Your task to perform on an android device: toggle location history Image 0: 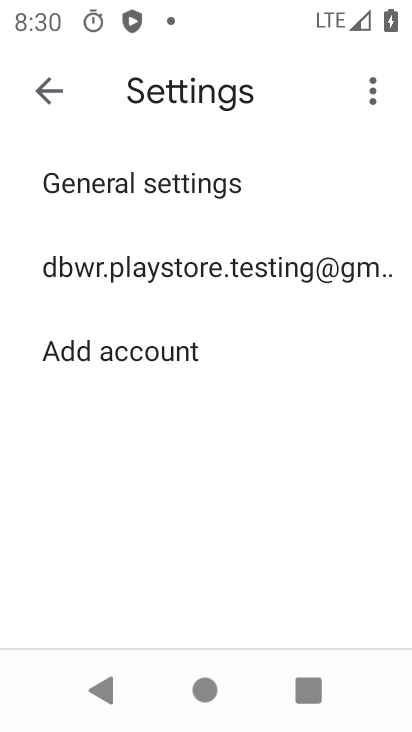
Step 0: drag from (239, 521) to (352, 161)
Your task to perform on an android device: toggle location history Image 1: 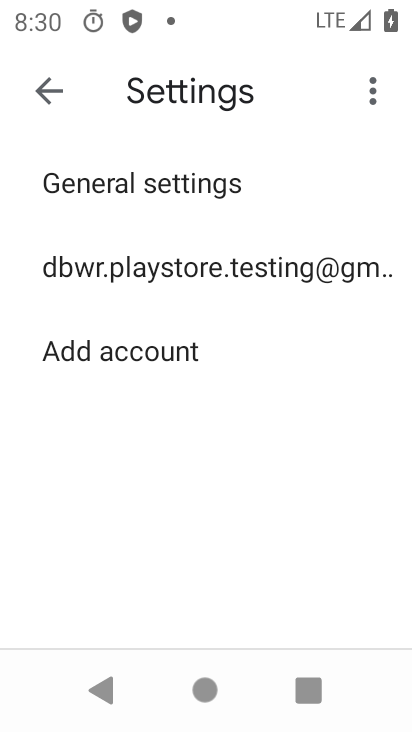
Step 1: press home button
Your task to perform on an android device: toggle location history Image 2: 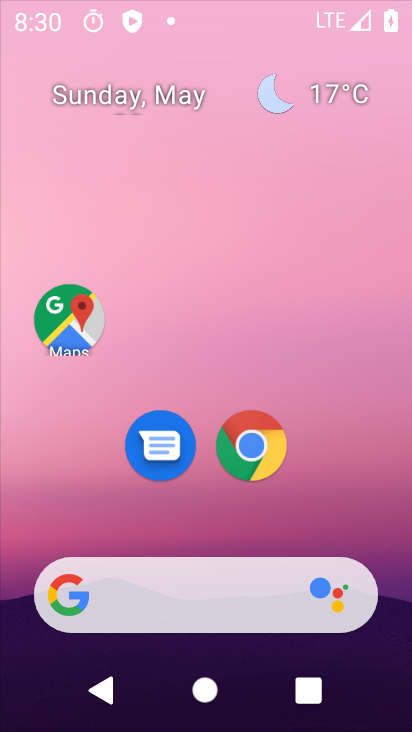
Step 2: drag from (197, 541) to (294, 8)
Your task to perform on an android device: toggle location history Image 3: 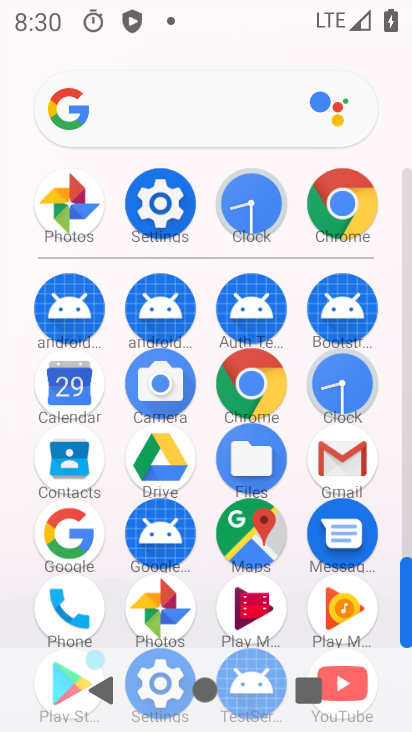
Step 3: click (140, 217)
Your task to perform on an android device: toggle location history Image 4: 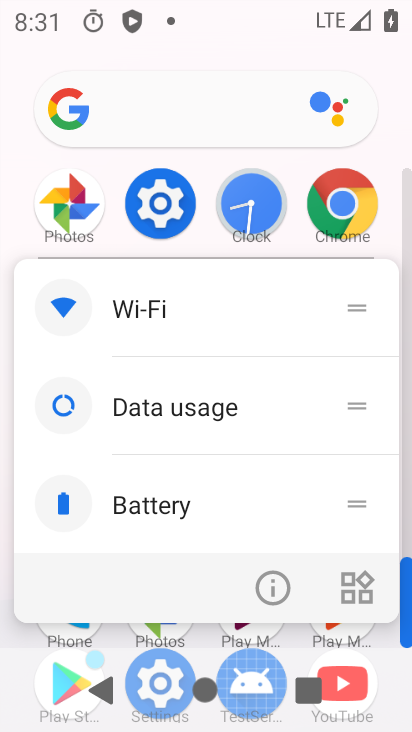
Step 4: click (264, 577)
Your task to perform on an android device: toggle location history Image 5: 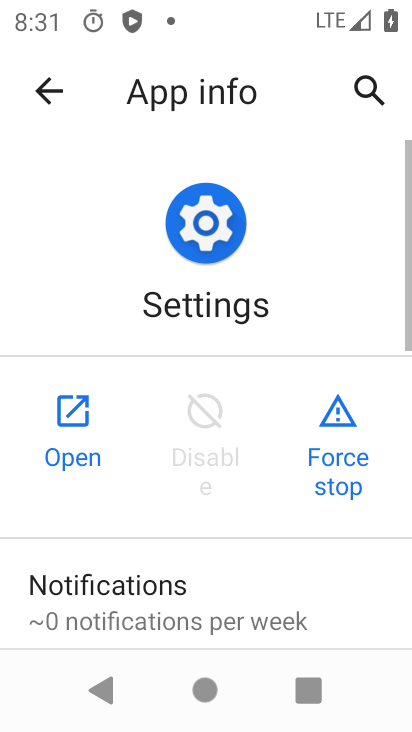
Step 5: click (76, 406)
Your task to perform on an android device: toggle location history Image 6: 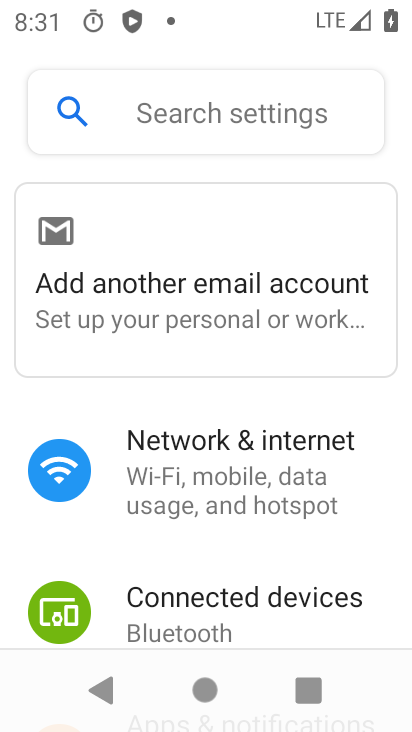
Step 6: drag from (224, 595) to (315, 6)
Your task to perform on an android device: toggle location history Image 7: 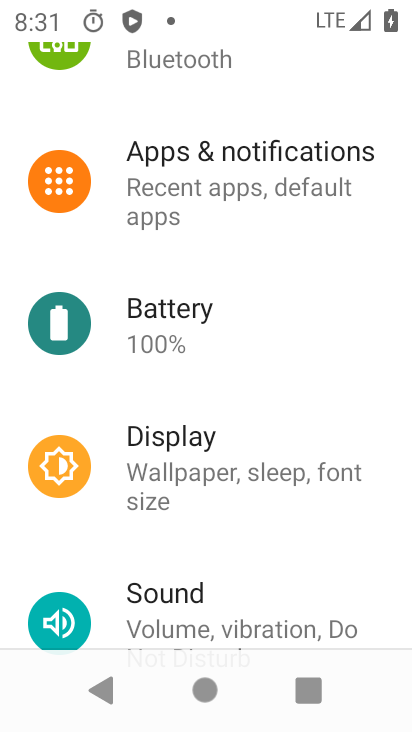
Step 7: drag from (217, 533) to (312, 1)
Your task to perform on an android device: toggle location history Image 8: 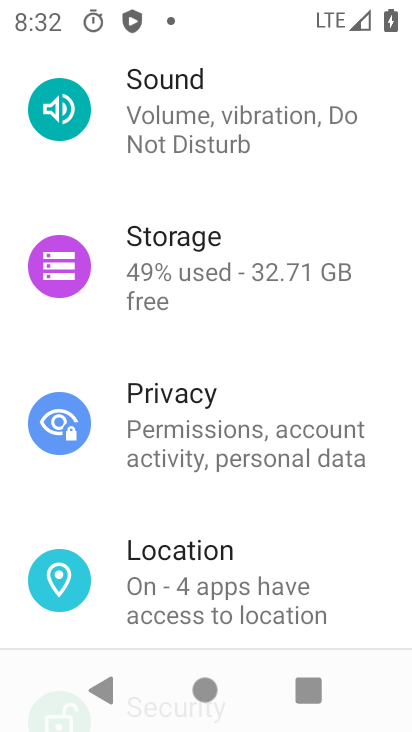
Step 8: click (165, 555)
Your task to perform on an android device: toggle location history Image 9: 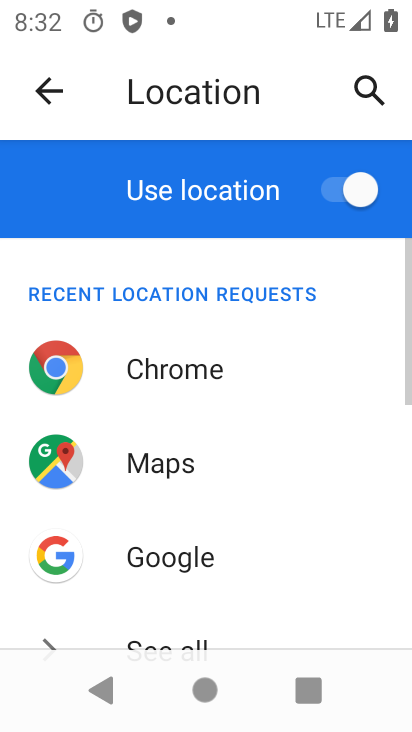
Step 9: drag from (193, 495) to (266, 11)
Your task to perform on an android device: toggle location history Image 10: 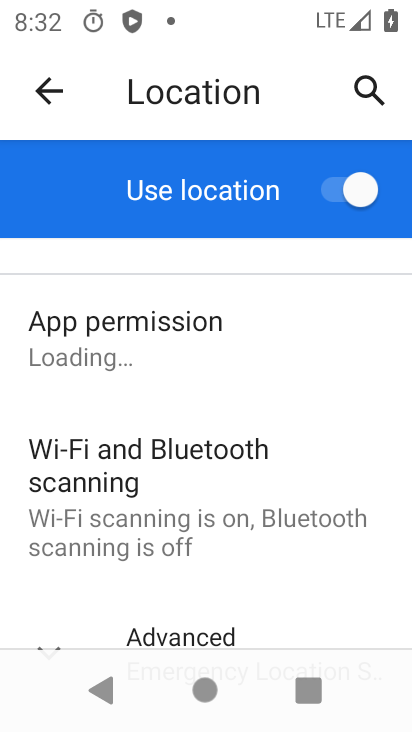
Step 10: drag from (243, 444) to (266, 254)
Your task to perform on an android device: toggle location history Image 11: 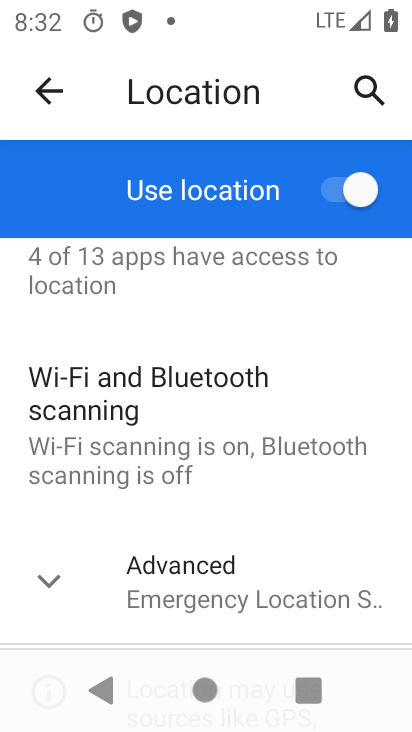
Step 11: drag from (217, 378) to (293, 717)
Your task to perform on an android device: toggle location history Image 12: 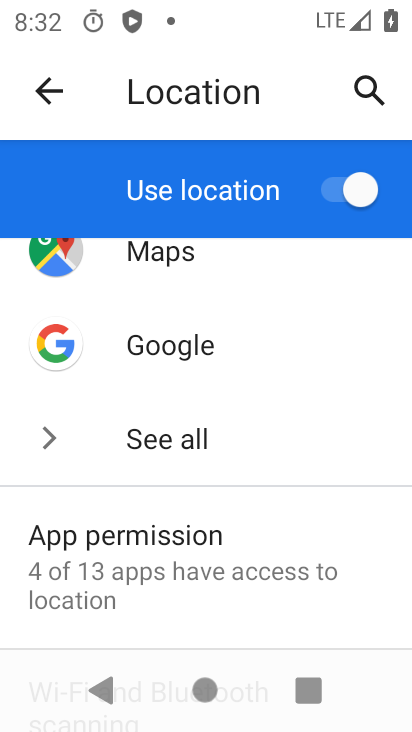
Step 12: drag from (248, 361) to (325, 730)
Your task to perform on an android device: toggle location history Image 13: 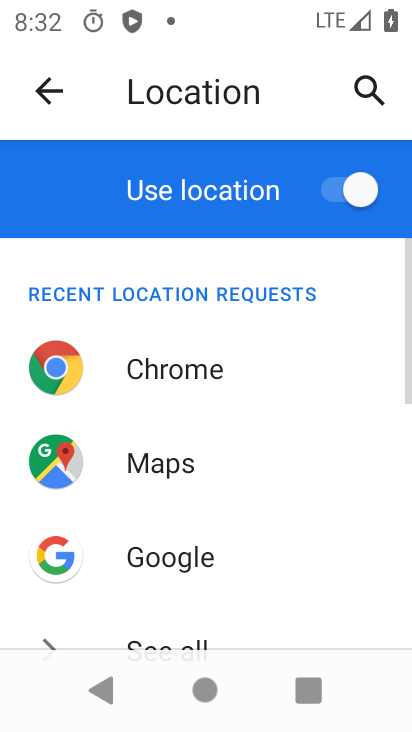
Step 13: drag from (240, 547) to (318, 202)
Your task to perform on an android device: toggle location history Image 14: 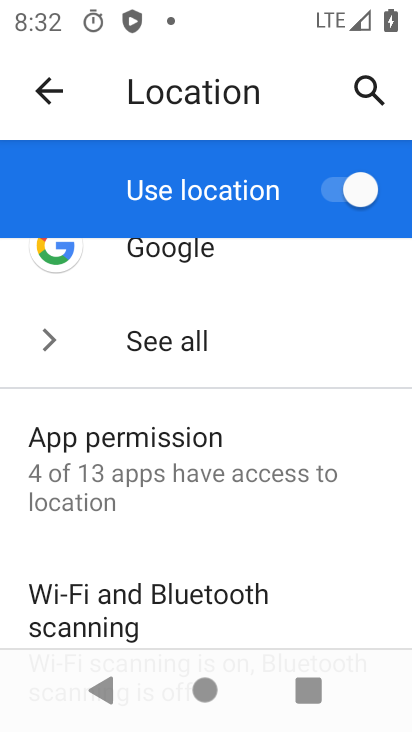
Step 14: drag from (210, 582) to (342, 184)
Your task to perform on an android device: toggle location history Image 15: 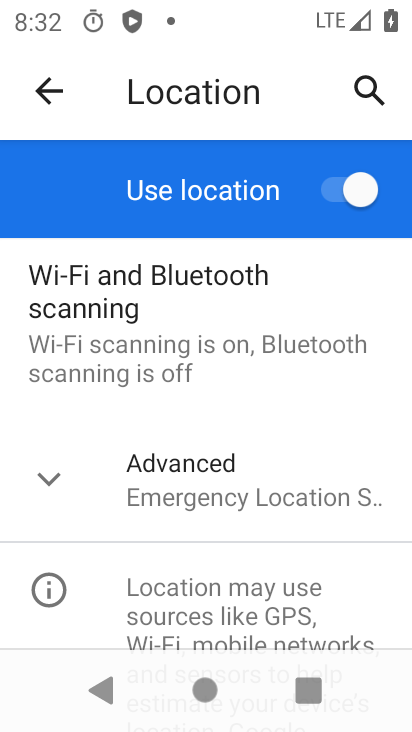
Step 15: click (152, 480)
Your task to perform on an android device: toggle location history Image 16: 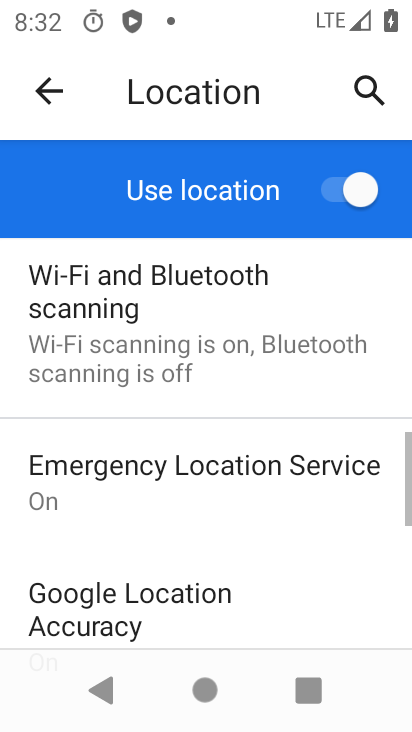
Step 16: drag from (185, 455) to (409, 123)
Your task to perform on an android device: toggle location history Image 17: 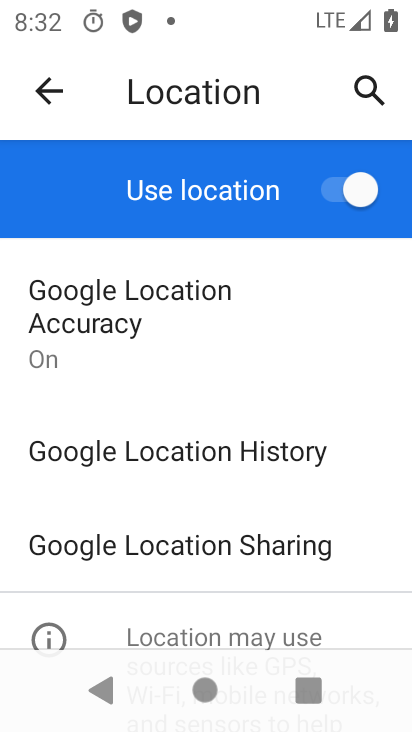
Step 17: click (112, 465)
Your task to perform on an android device: toggle location history Image 18: 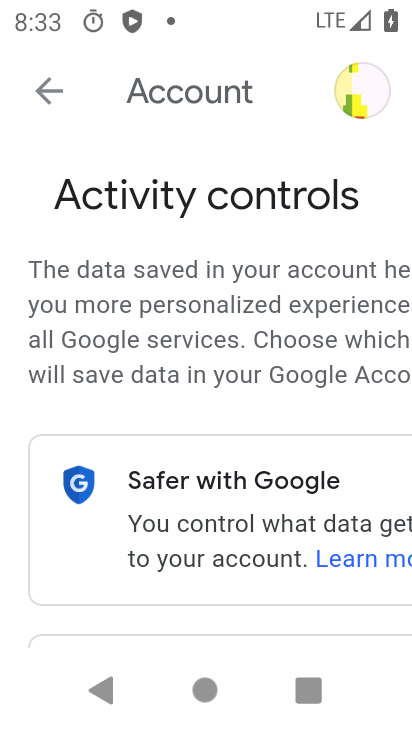
Step 18: drag from (177, 569) to (365, 70)
Your task to perform on an android device: toggle location history Image 19: 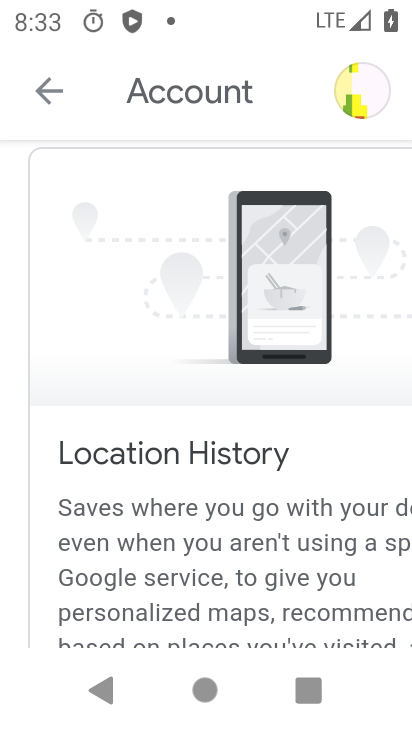
Step 19: drag from (259, 585) to (298, 60)
Your task to perform on an android device: toggle location history Image 20: 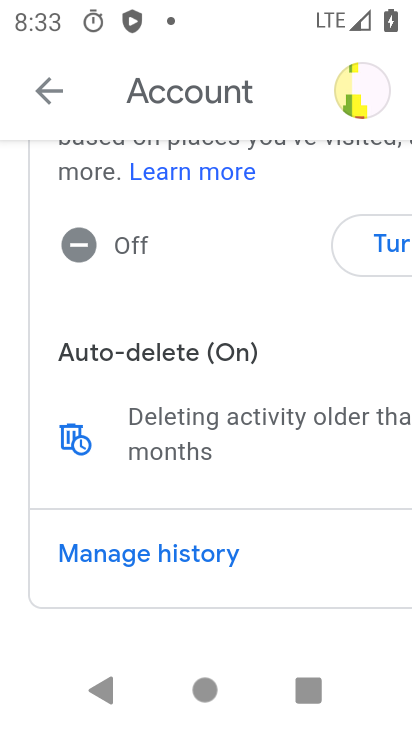
Step 20: click (348, 250)
Your task to perform on an android device: toggle location history Image 21: 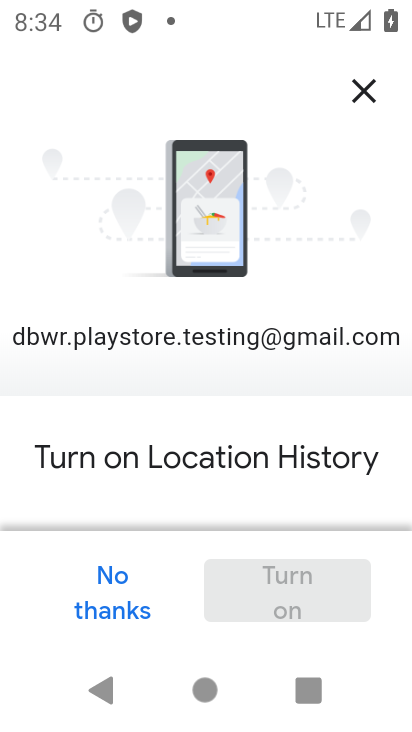
Step 21: drag from (245, 476) to (377, 2)
Your task to perform on an android device: toggle location history Image 22: 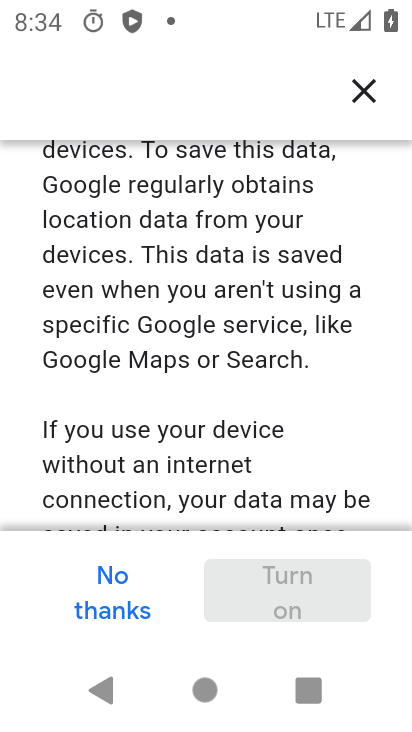
Step 22: drag from (219, 473) to (377, 20)
Your task to perform on an android device: toggle location history Image 23: 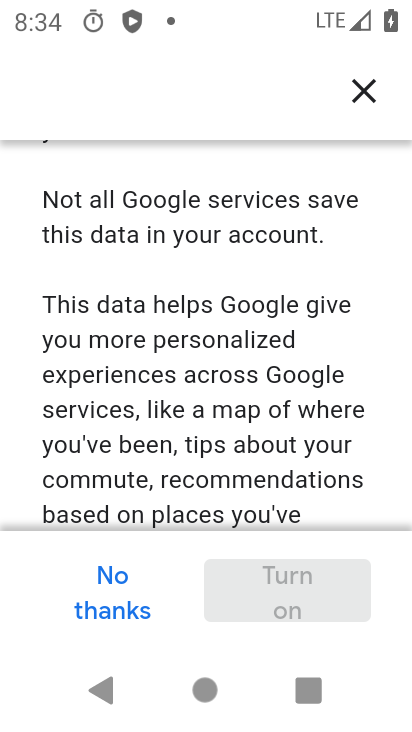
Step 23: drag from (247, 508) to (339, 481)
Your task to perform on an android device: toggle location history Image 24: 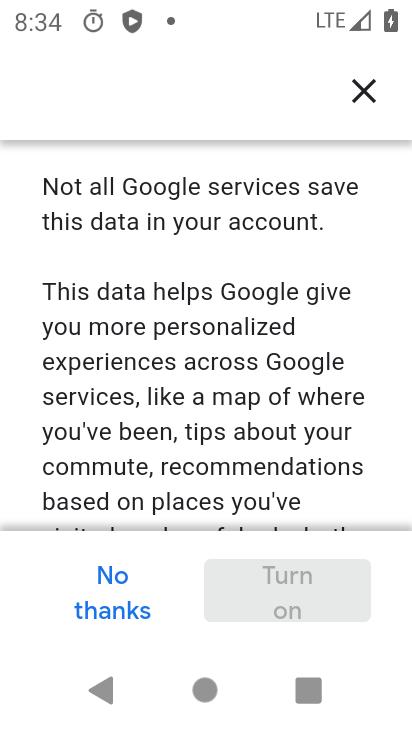
Step 24: drag from (300, 471) to (359, 14)
Your task to perform on an android device: toggle location history Image 25: 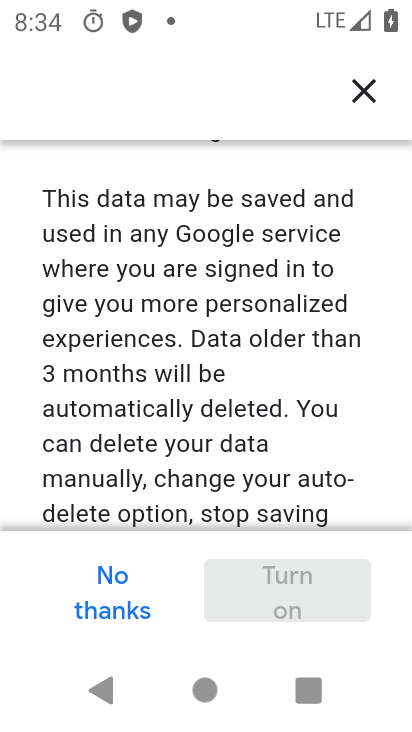
Step 25: drag from (238, 488) to (359, 31)
Your task to perform on an android device: toggle location history Image 26: 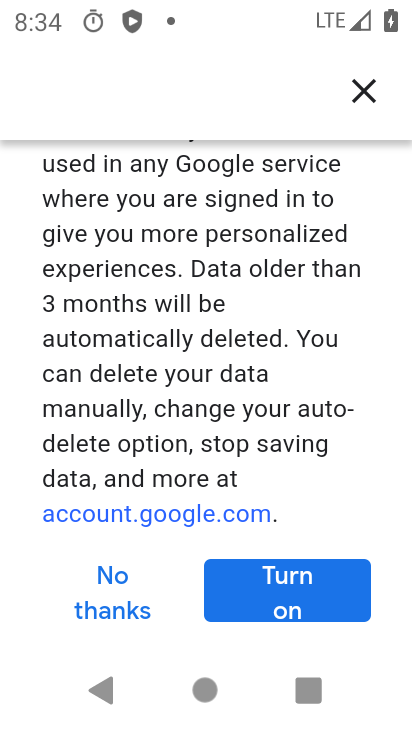
Step 26: click (289, 616)
Your task to perform on an android device: toggle location history Image 27: 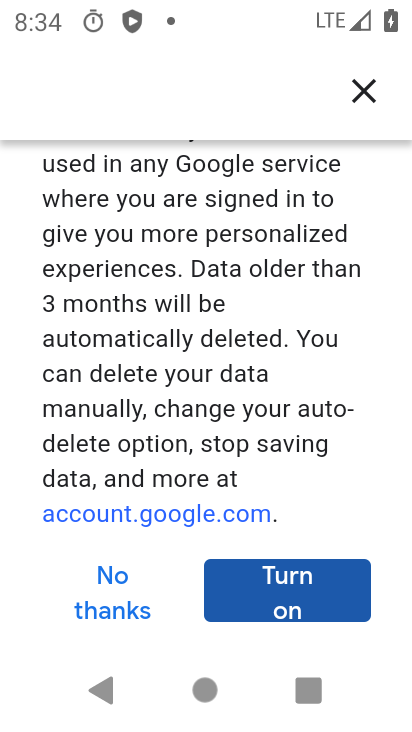
Step 27: task complete